Your task to perform on an android device: Check the weather Image 0: 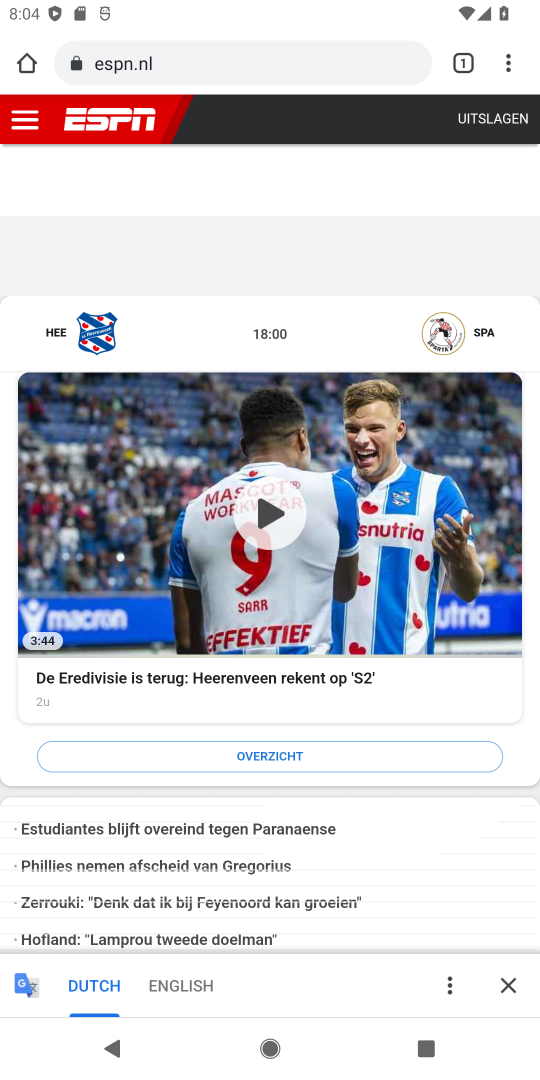
Step 0: press home button
Your task to perform on an android device: Check the weather Image 1: 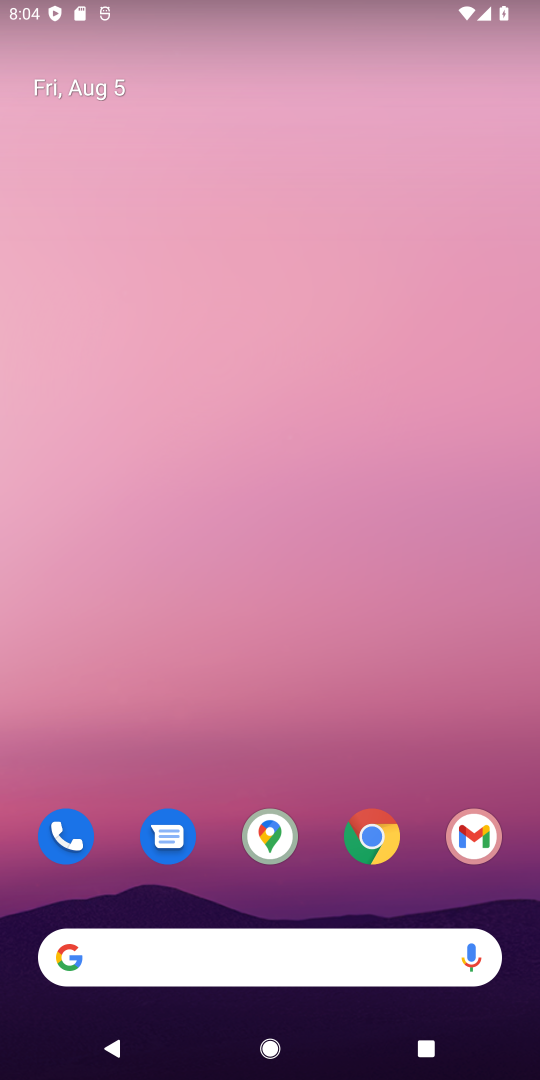
Step 1: click (258, 955)
Your task to perform on an android device: Check the weather Image 2: 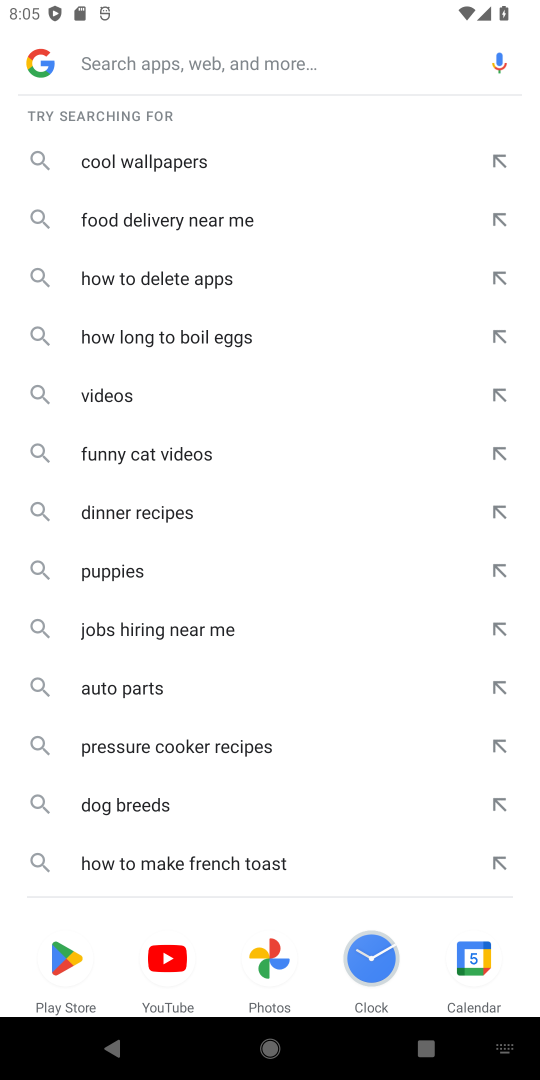
Step 2: type "weather"
Your task to perform on an android device: Check the weather Image 3: 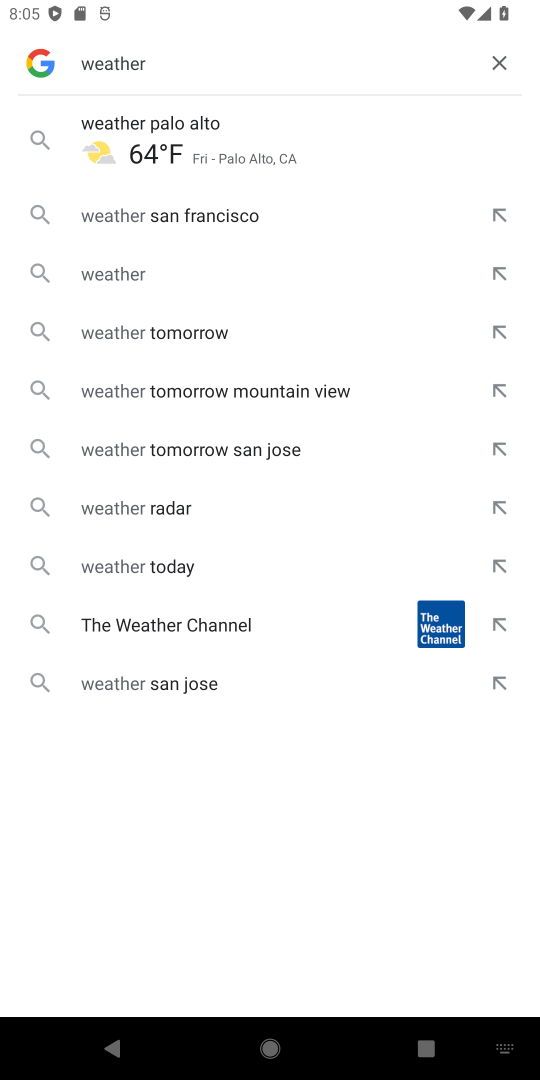
Step 3: click (133, 126)
Your task to perform on an android device: Check the weather Image 4: 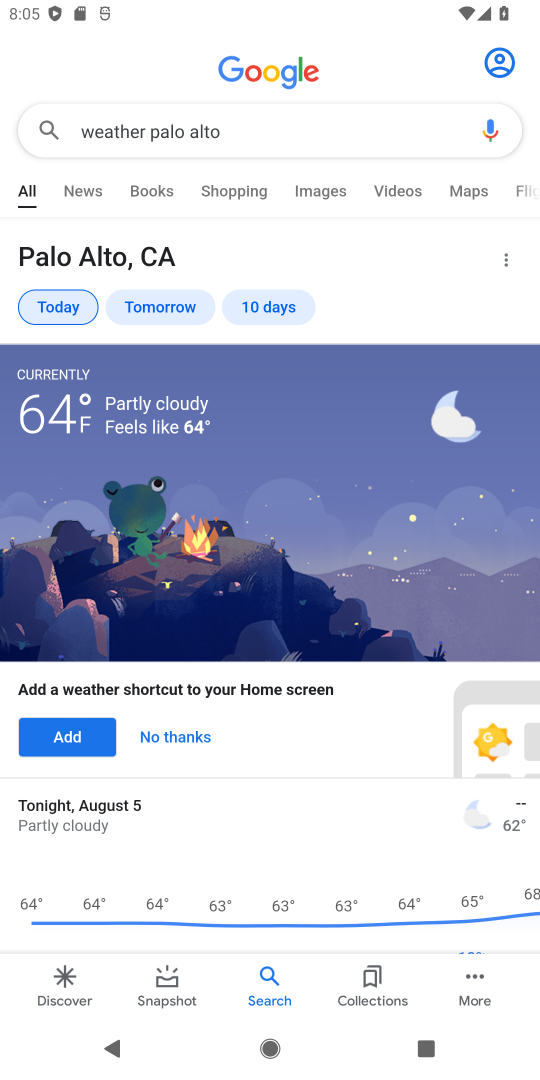
Step 4: task complete